Your task to perform on an android device: What is the recent news? Image 0: 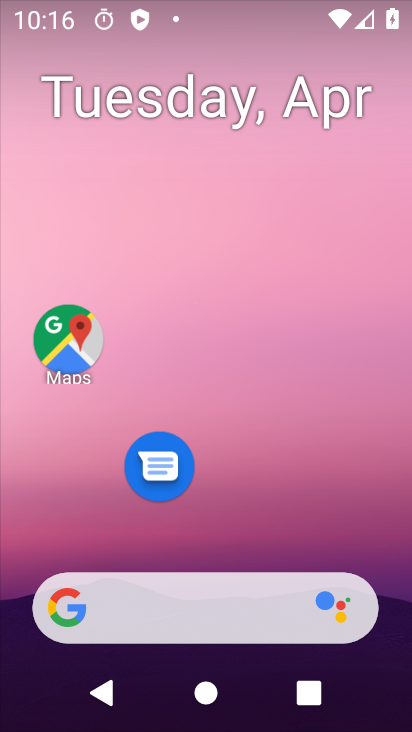
Step 0: drag from (328, 492) to (305, 83)
Your task to perform on an android device: What is the recent news? Image 1: 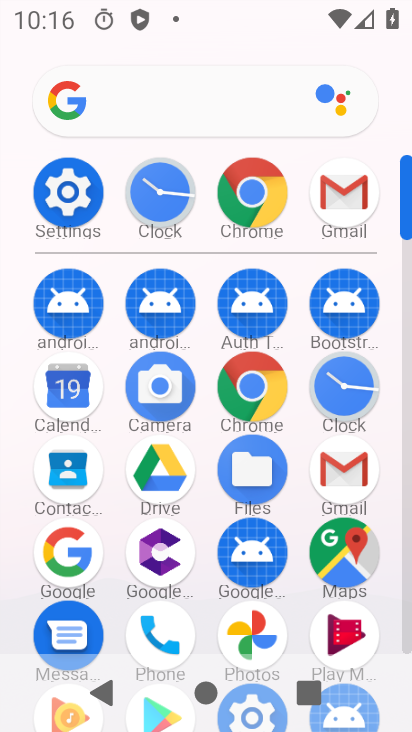
Step 1: click (252, 204)
Your task to perform on an android device: What is the recent news? Image 2: 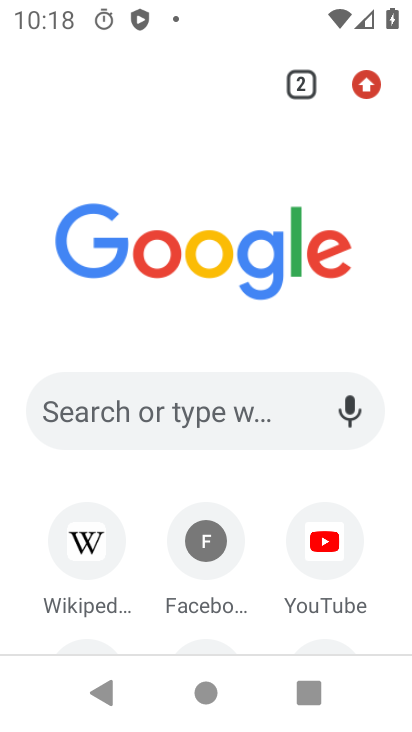
Step 2: task complete